Your task to perform on an android device: Open Yahoo.com Image 0: 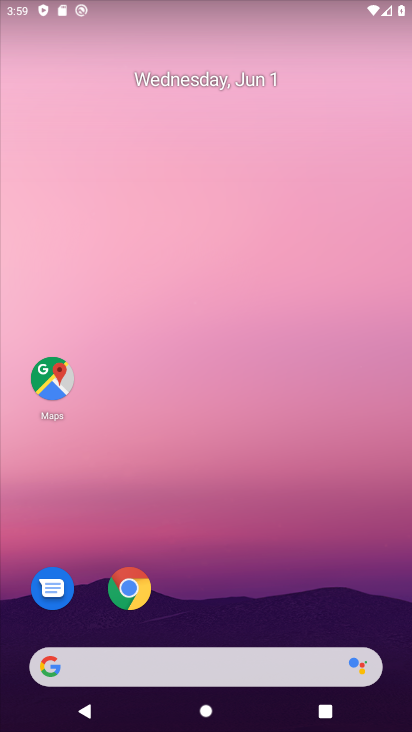
Step 0: click (132, 601)
Your task to perform on an android device: Open Yahoo.com Image 1: 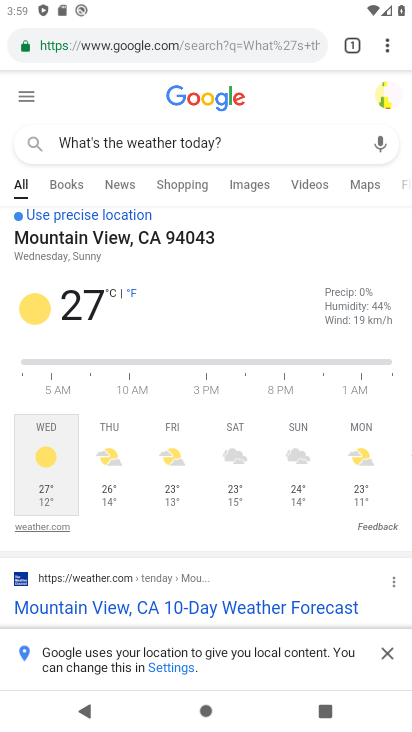
Step 1: click (262, 49)
Your task to perform on an android device: Open Yahoo.com Image 2: 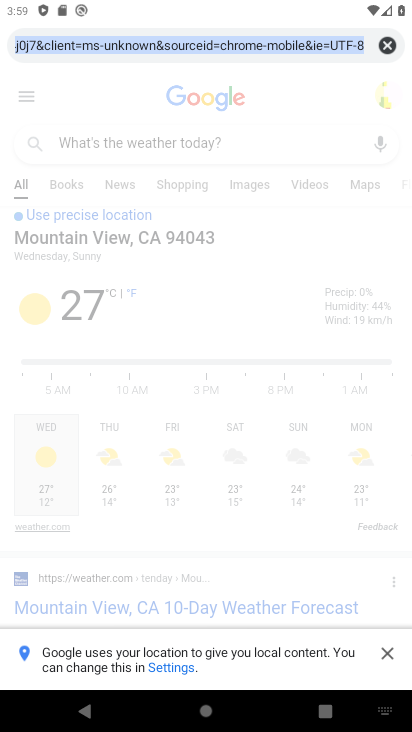
Step 2: type "yahoo.com"
Your task to perform on an android device: Open Yahoo.com Image 3: 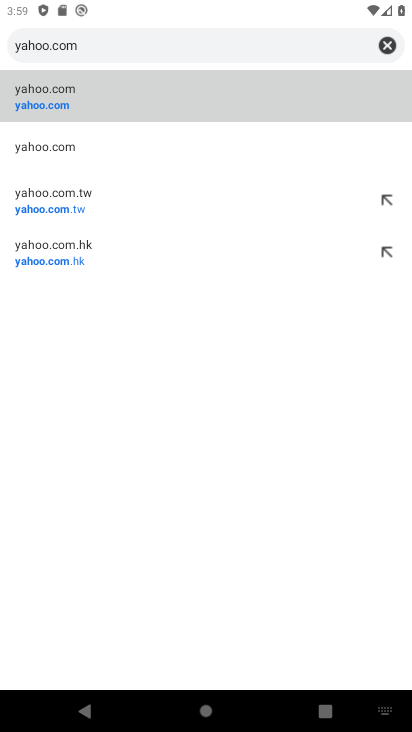
Step 3: click (37, 107)
Your task to perform on an android device: Open Yahoo.com Image 4: 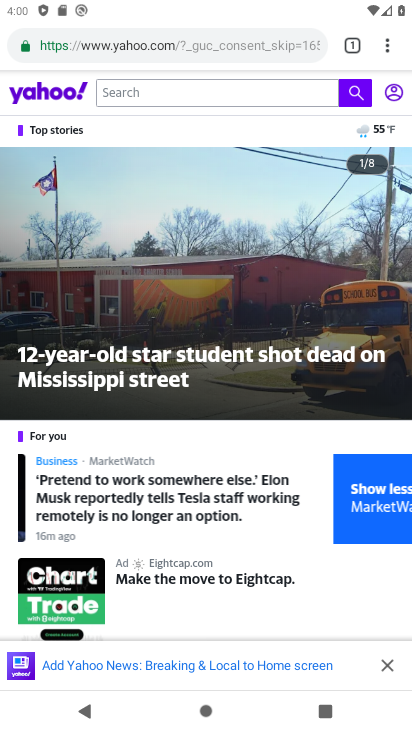
Step 4: task complete